Your task to perform on an android device: Open Reddit.com Image 0: 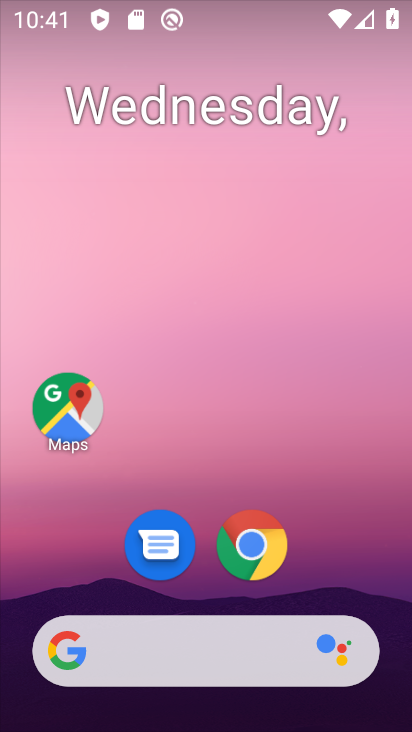
Step 0: click (204, 658)
Your task to perform on an android device: Open Reddit.com Image 1: 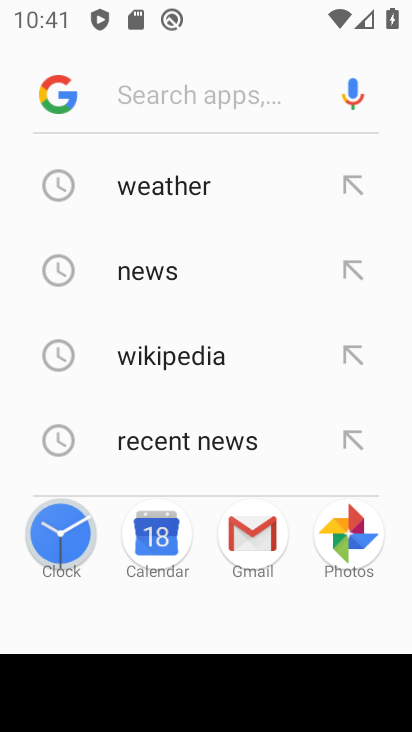
Step 1: type "reddit.com"
Your task to perform on an android device: Open Reddit.com Image 2: 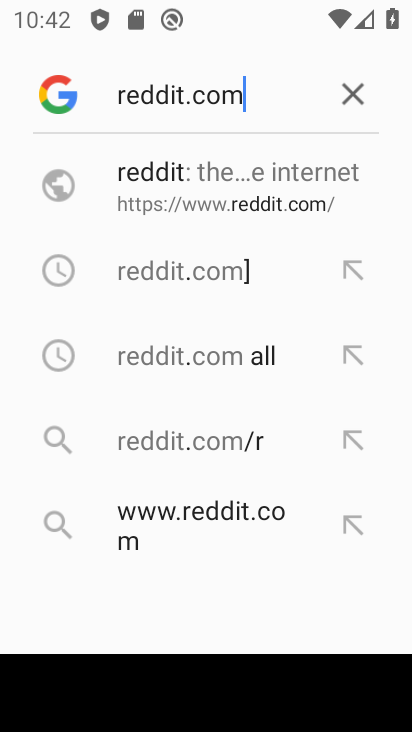
Step 2: click (256, 203)
Your task to perform on an android device: Open Reddit.com Image 3: 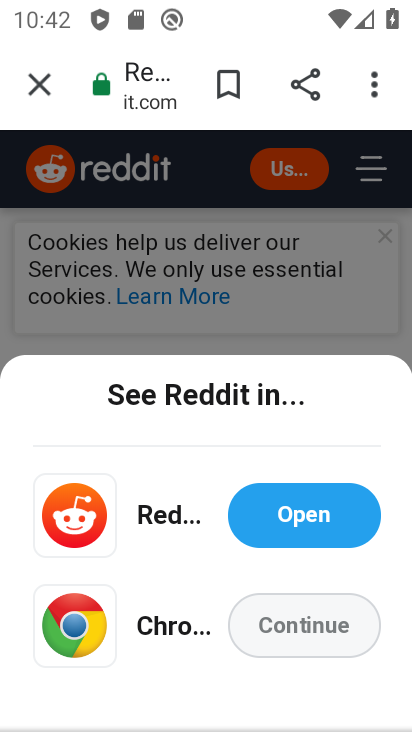
Step 3: task complete